Your task to perform on an android device: What is the recent news? Image 0: 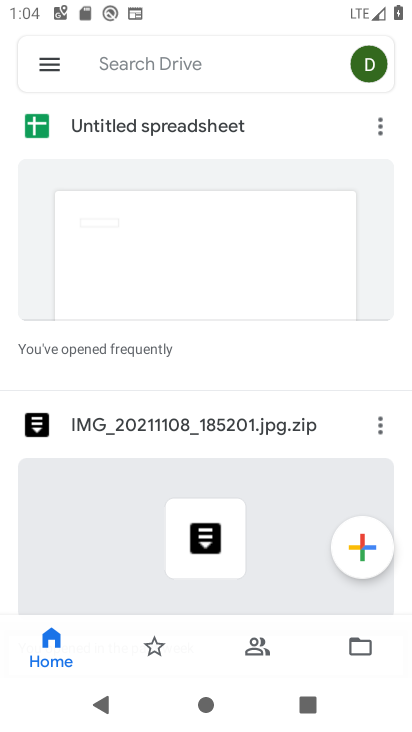
Step 0: press home button
Your task to perform on an android device: What is the recent news? Image 1: 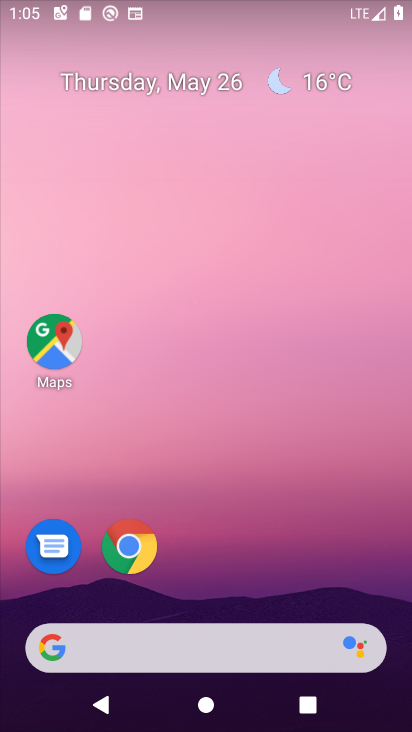
Step 1: click (145, 540)
Your task to perform on an android device: What is the recent news? Image 2: 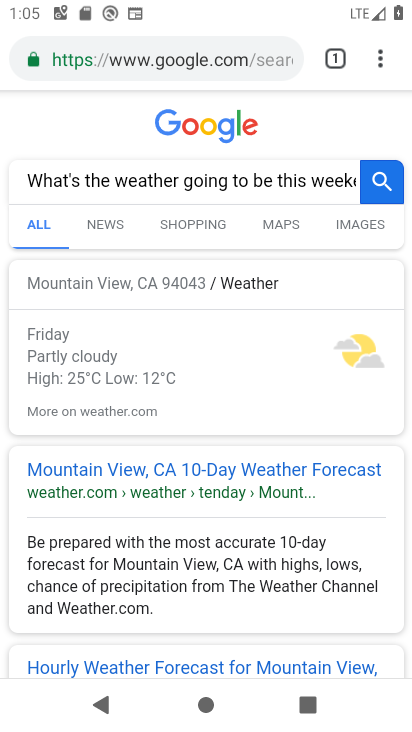
Step 2: click (95, 54)
Your task to perform on an android device: What is the recent news? Image 3: 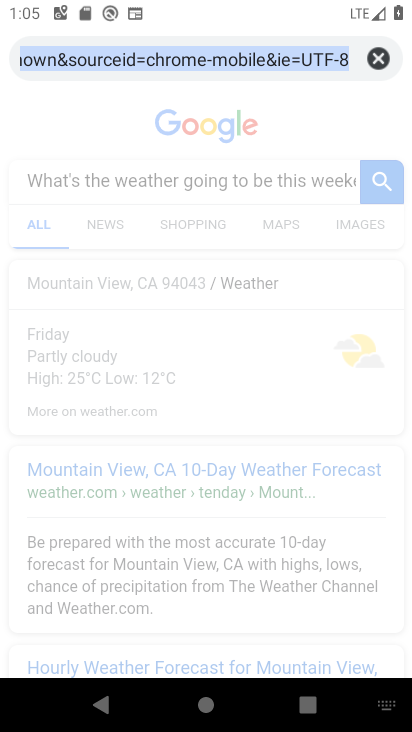
Step 3: type "recent news?"
Your task to perform on an android device: What is the recent news? Image 4: 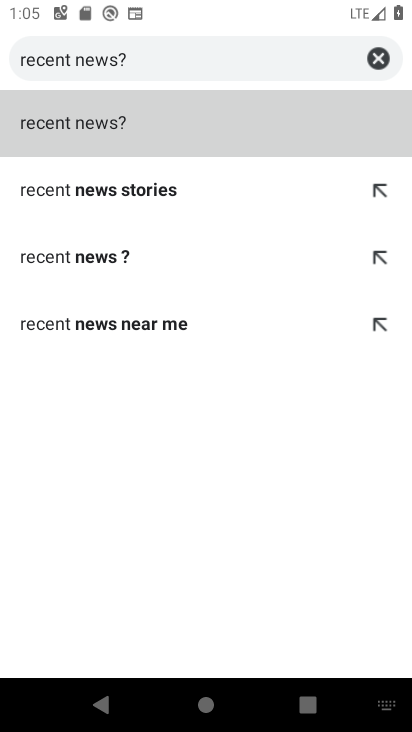
Step 4: click (108, 144)
Your task to perform on an android device: What is the recent news? Image 5: 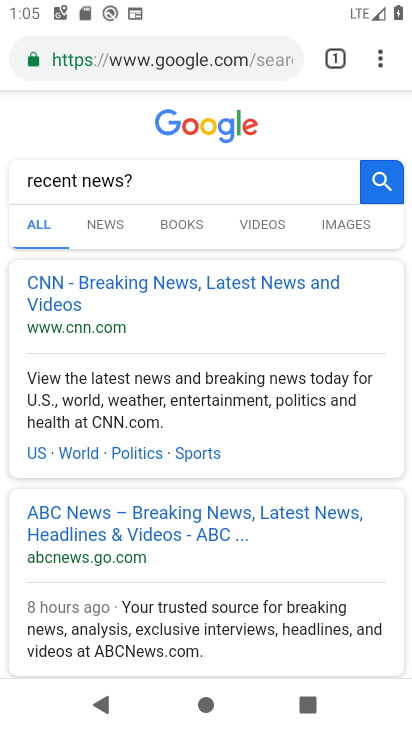
Step 5: task complete